Your task to perform on an android device: What's the weather today? Image 0: 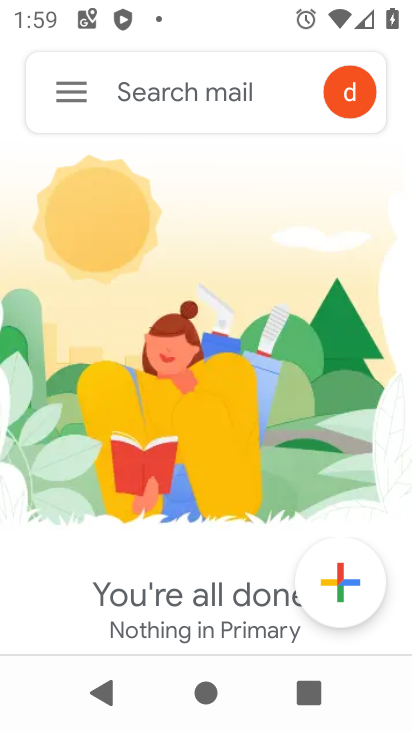
Step 0: press home button
Your task to perform on an android device: What's the weather today? Image 1: 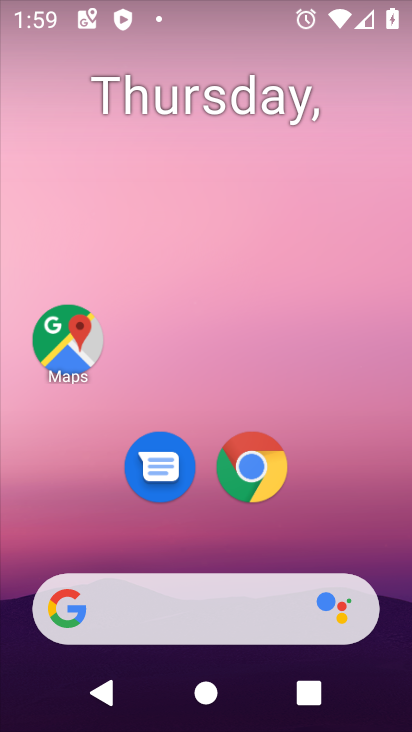
Step 1: drag from (335, 422) to (299, 149)
Your task to perform on an android device: What's the weather today? Image 2: 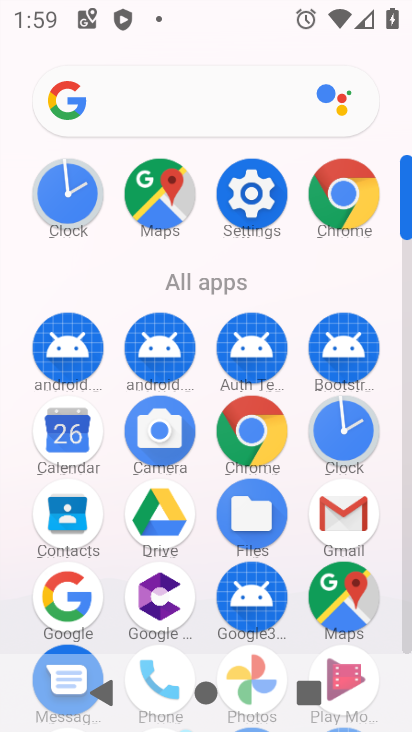
Step 2: click (334, 207)
Your task to perform on an android device: What's the weather today? Image 3: 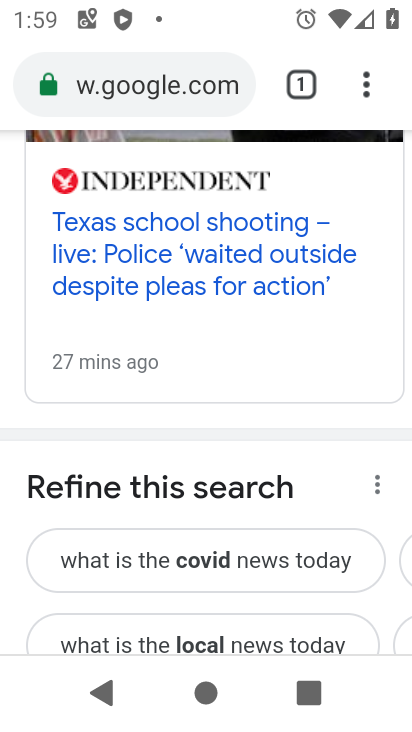
Step 3: click (148, 109)
Your task to perform on an android device: What's the weather today? Image 4: 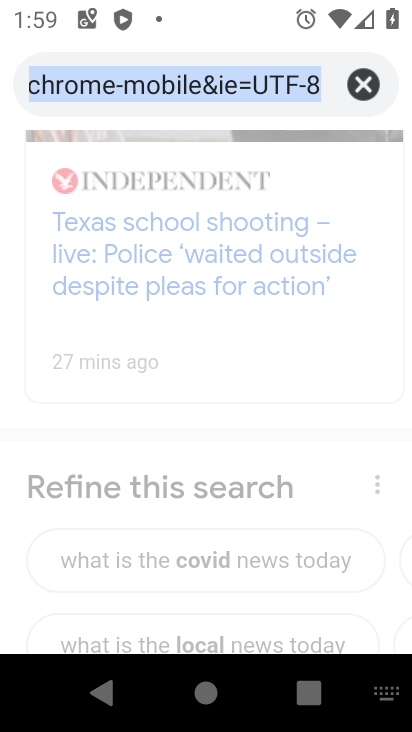
Step 4: click (375, 83)
Your task to perform on an android device: What's the weather today? Image 5: 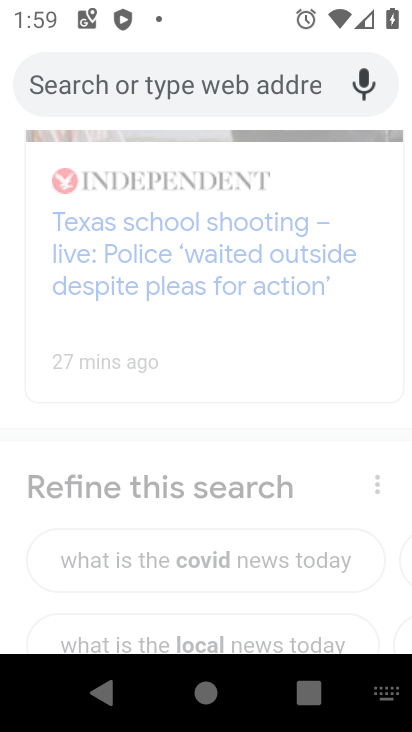
Step 5: type "what's the weather today"
Your task to perform on an android device: What's the weather today? Image 6: 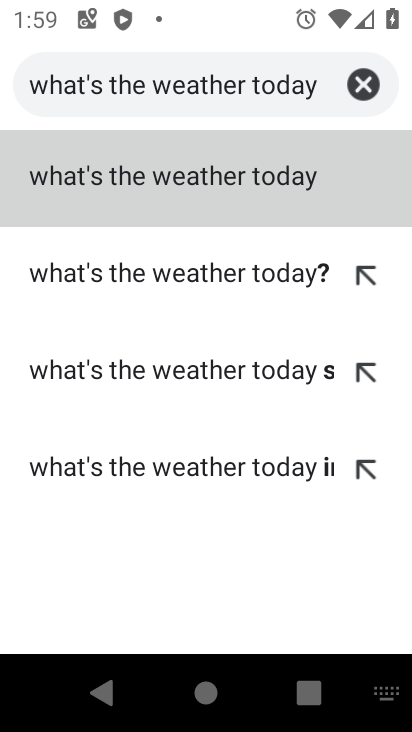
Step 6: click (194, 176)
Your task to perform on an android device: What's the weather today? Image 7: 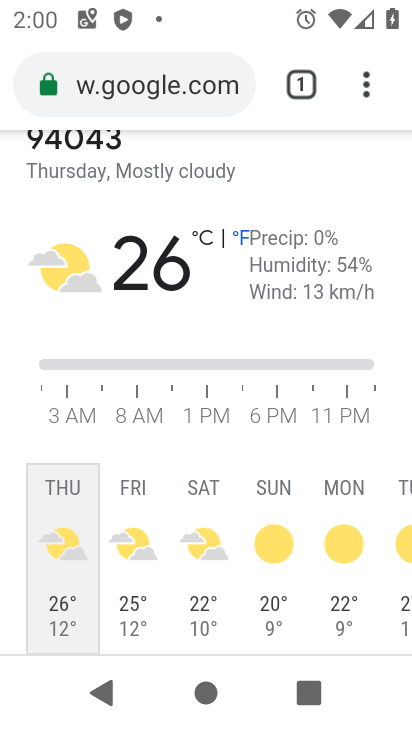
Step 7: task complete